Your task to perform on an android device: search for starred emails in the gmail app Image 0: 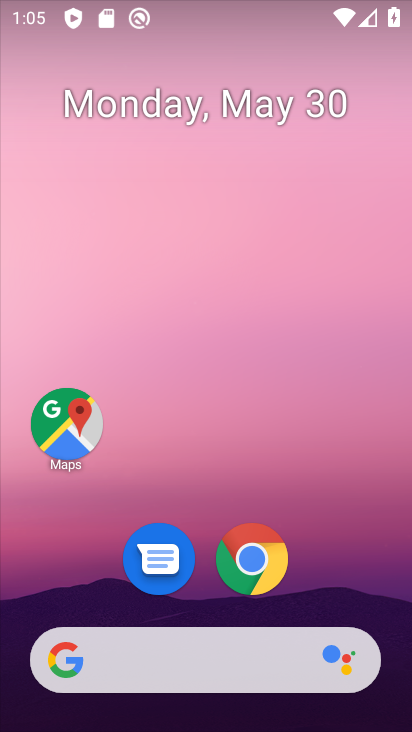
Step 0: drag from (141, 729) to (80, 71)
Your task to perform on an android device: search for starred emails in the gmail app Image 1: 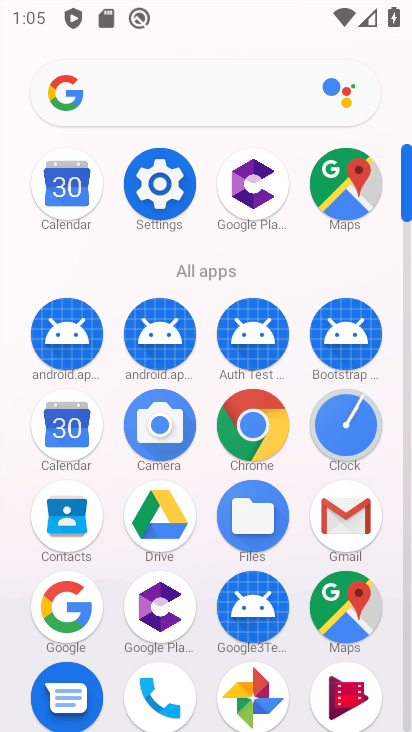
Step 1: click (344, 538)
Your task to perform on an android device: search for starred emails in the gmail app Image 2: 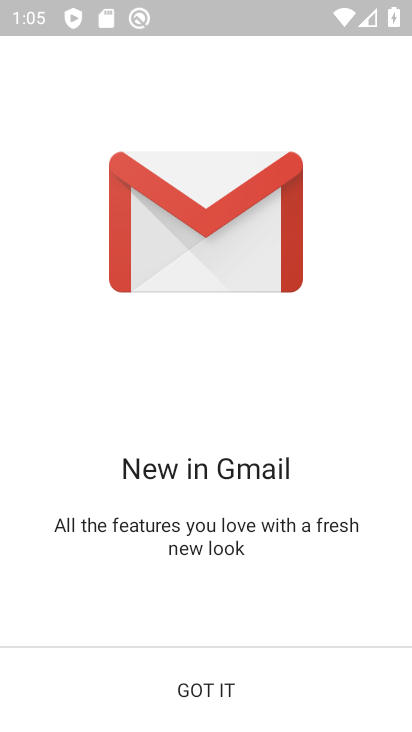
Step 2: click (221, 694)
Your task to perform on an android device: search for starred emails in the gmail app Image 3: 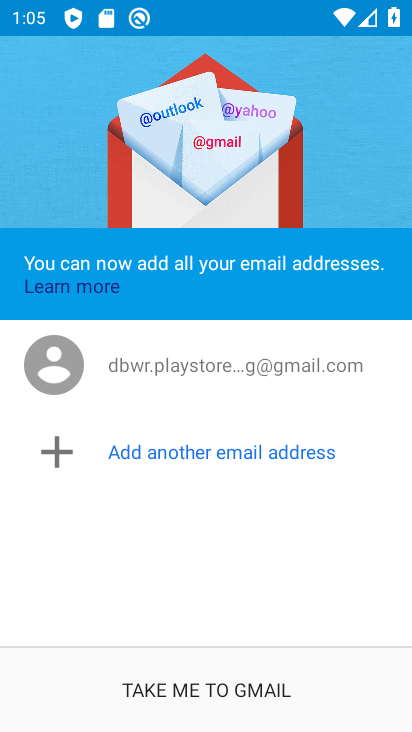
Step 3: click (213, 689)
Your task to perform on an android device: search for starred emails in the gmail app Image 4: 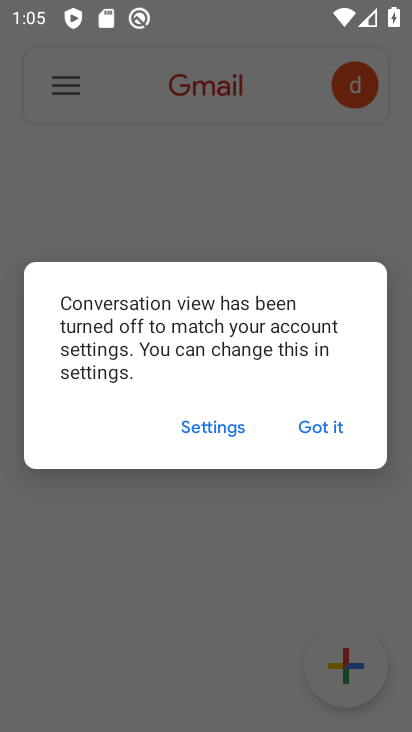
Step 4: click (307, 436)
Your task to perform on an android device: search for starred emails in the gmail app Image 5: 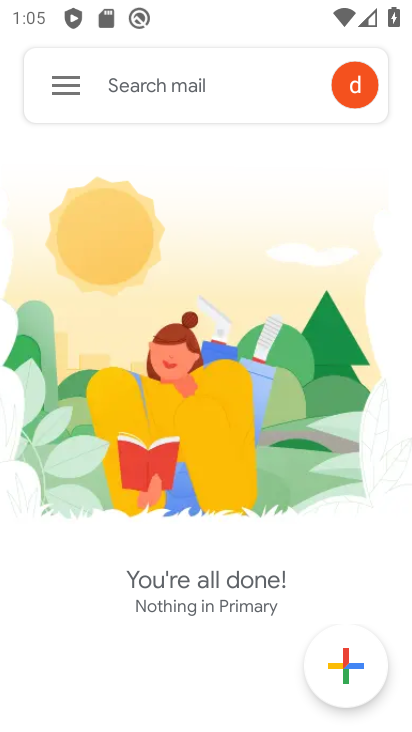
Step 5: click (66, 97)
Your task to perform on an android device: search for starred emails in the gmail app Image 6: 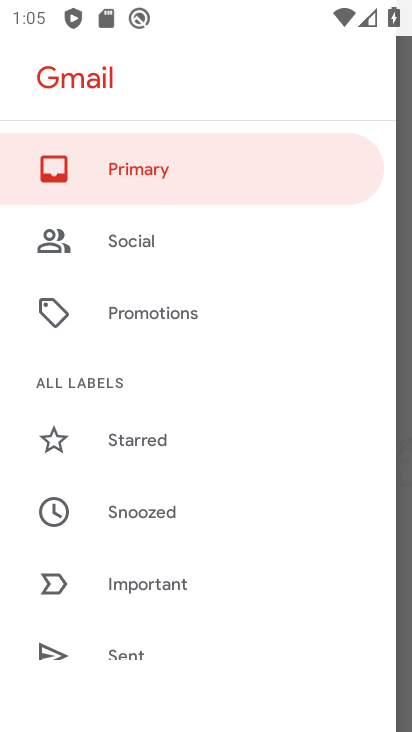
Step 6: click (125, 433)
Your task to perform on an android device: search for starred emails in the gmail app Image 7: 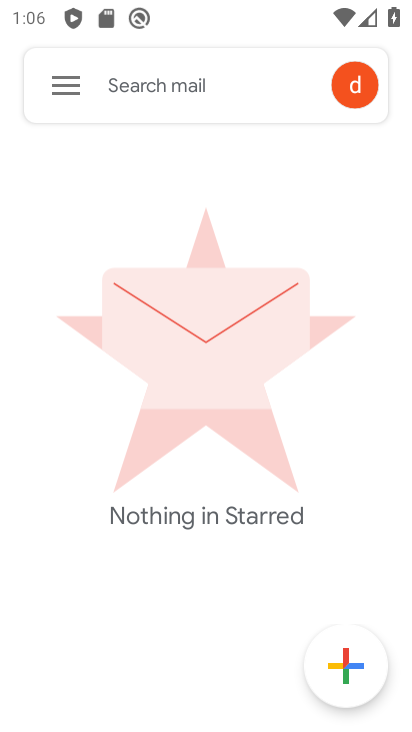
Step 7: task complete